Your task to perform on an android device: Open a new incognito tab in the chrome app Image 0: 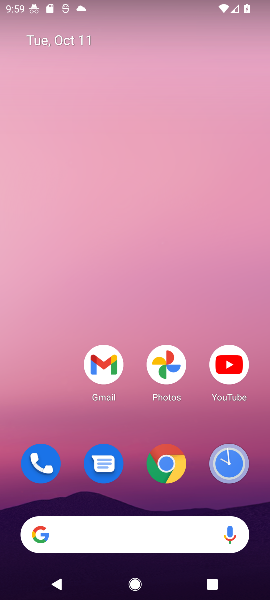
Step 0: drag from (110, 516) to (106, 130)
Your task to perform on an android device: Open a new incognito tab in the chrome app Image 1: 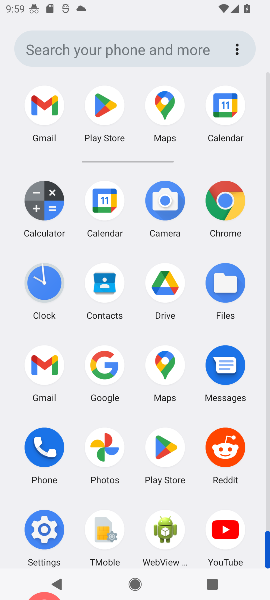
Step 1: click (98, 357)
Your task to perform on an android device: Open a new incognito tab in the chrome app Image 2: 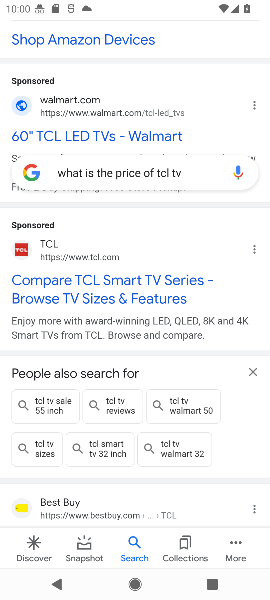
Step 2: press home button
Your task to perform on an android device: Open a new incognito tab in the chrome app Image 3: 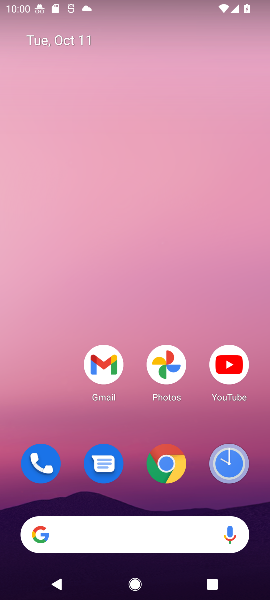
Step 3: click (162, 458)
Your task to perform on an android device: Open a new incognito tab in the chrome app Image 4: 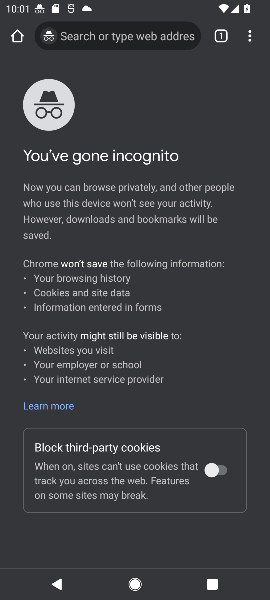
Step 4: task complete